Your task to perform on an android device: Show me recent news Image 0: 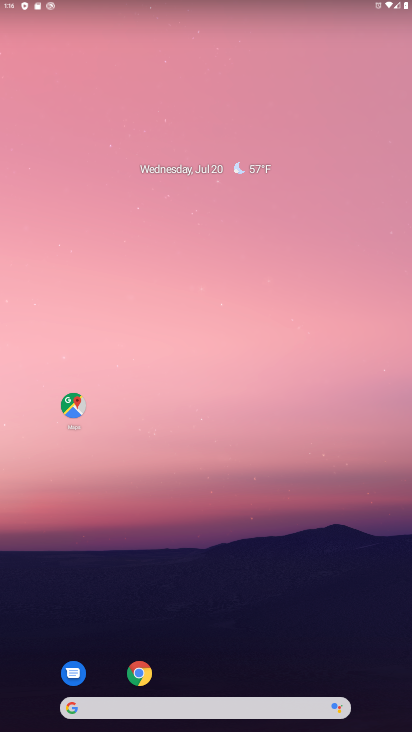
Step 0: drag from (13, 337) to (411, 324)
Your task to perform on an android device: Show me recent news Image 1: 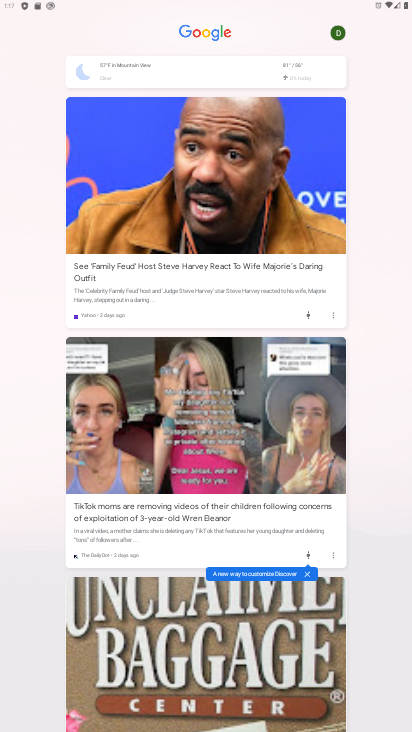
Step 1: task complete